Your task to perform on an android device: turn on data saver in the chrome app Image 0: 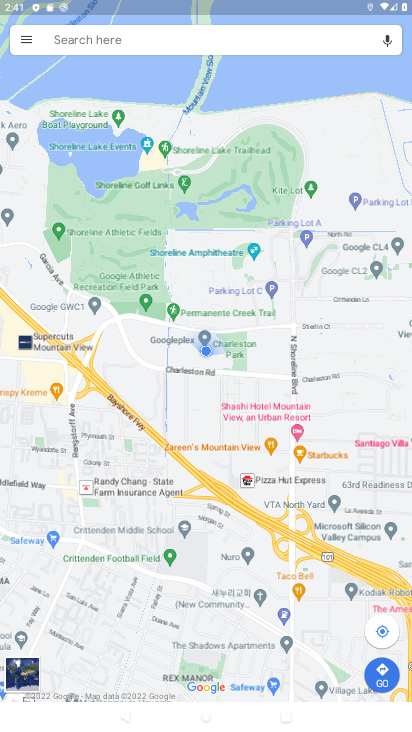
Step 0: press home button
Your task to perform on an android device: turn on data saver in the chrome app Image 1: 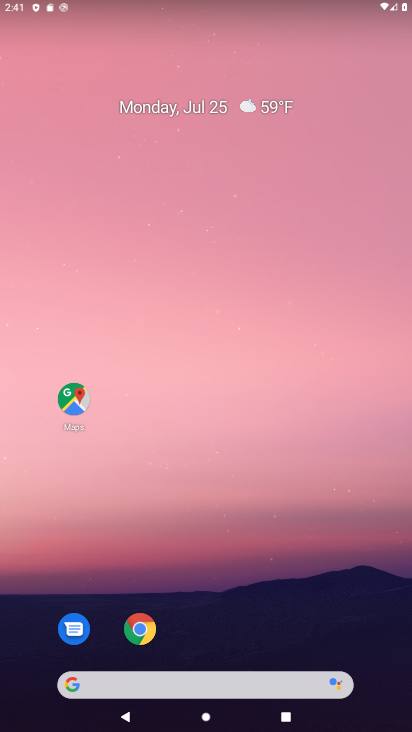
Step 1: click (139, 635)
Your task to perform on an android device: turn on data saver in the chrome app Image 2: 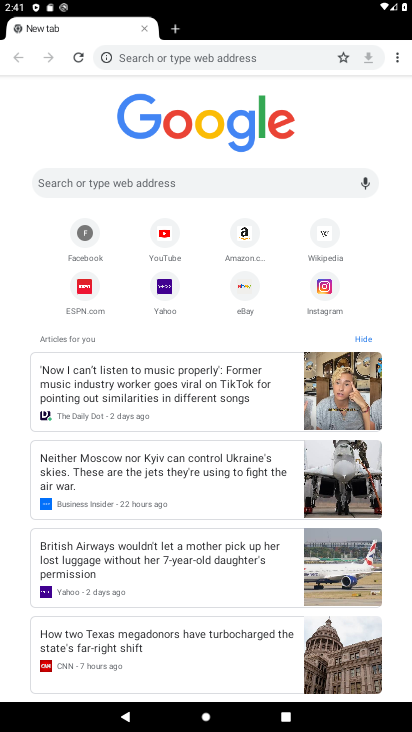
Step 2: click (397, 60)
Your task to perform on an android device: turn on data saver in the chrome app Image 3: 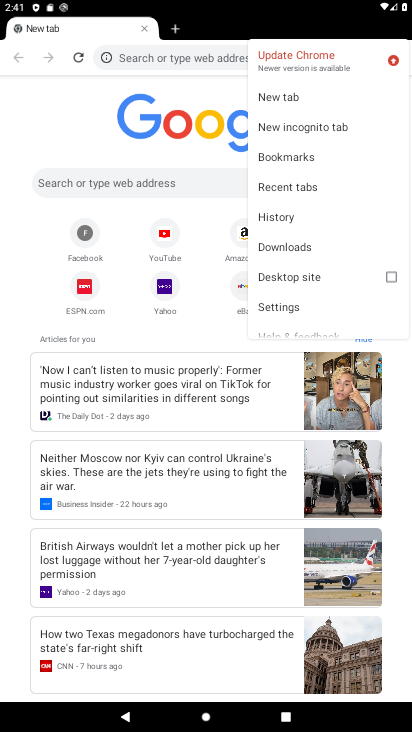
Step 3: click (306, 306)
Your task to perform on an android device: turn on data saver in the chrome app Image 4: 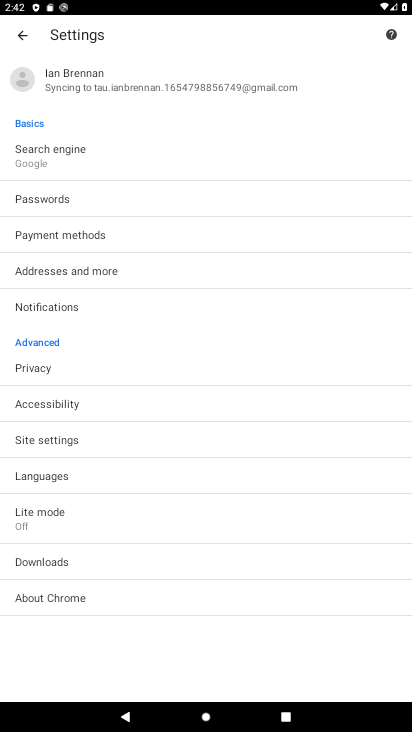
Step 4: click (73, 509)
Your task to perform on an android device: turn on data saver in the chrome app Image 5: 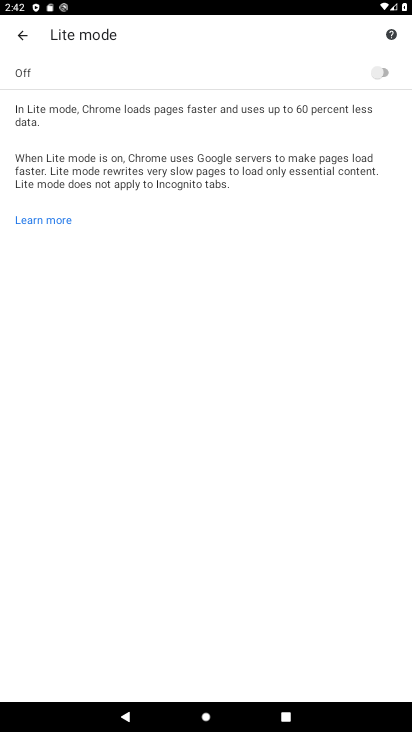
Step 5: click (382, 77)
Your task to perform on an android device: turn on data saver in the chrome app Image 6: 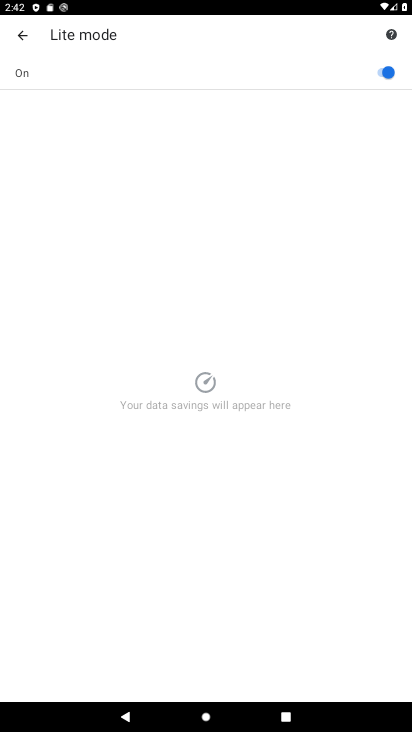
Step 6: task complete